Your task to perform on an android device: Open the Play Movies app and select the watchlist tab. Image 0: 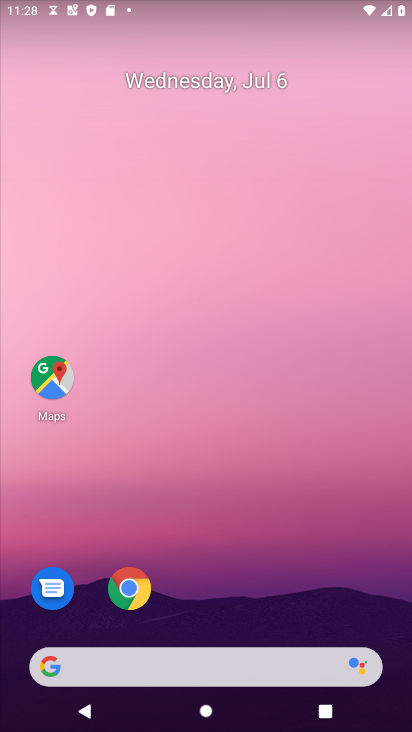
Step 0: drag from (234, 606) to (265, 168)
Your task to perform on an android device: Open the Play Movies app and select the watchlist tab. Image 1: 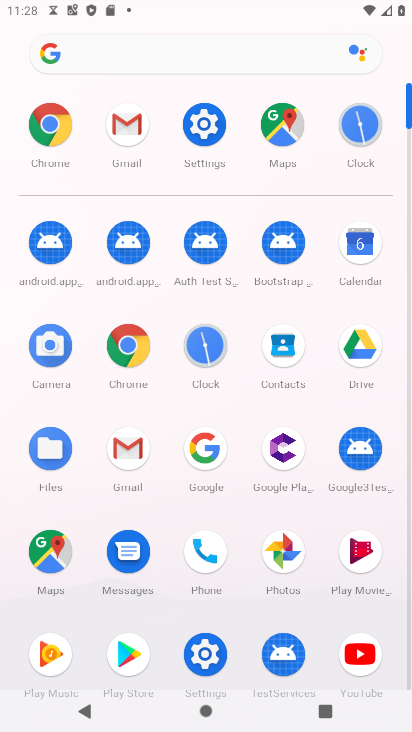
Step 1: click (355, 539)
Your task to perform on an android device: Open the Play Movies app and select the watchlist tab. Image 2: 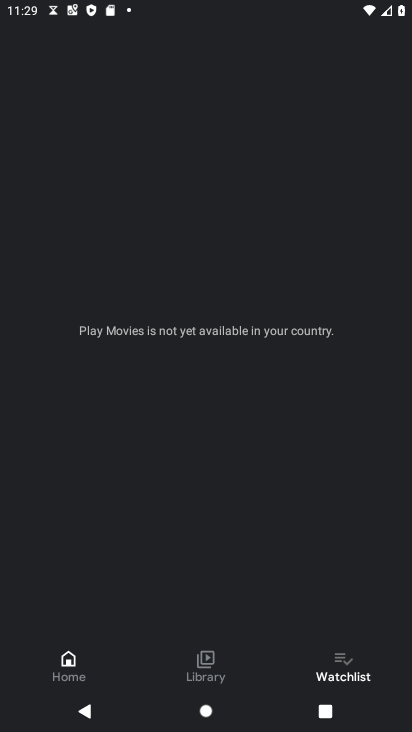
Step 2: task complete